Your task to perform on an android device: install app "Yahoo Mail" Image 0: 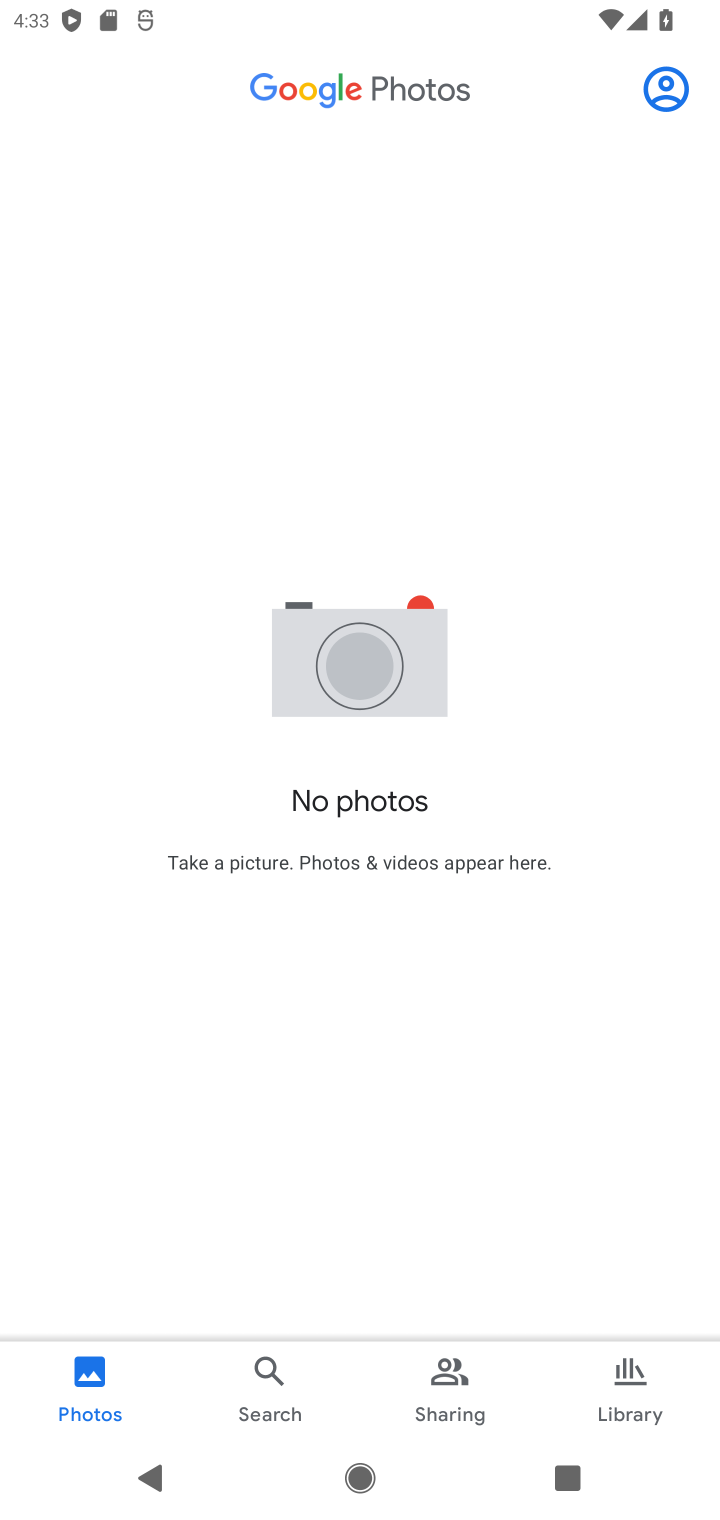
Step 0: press home button
Your task to perform on an android device: install app "Yahoo Mail" Image 1: 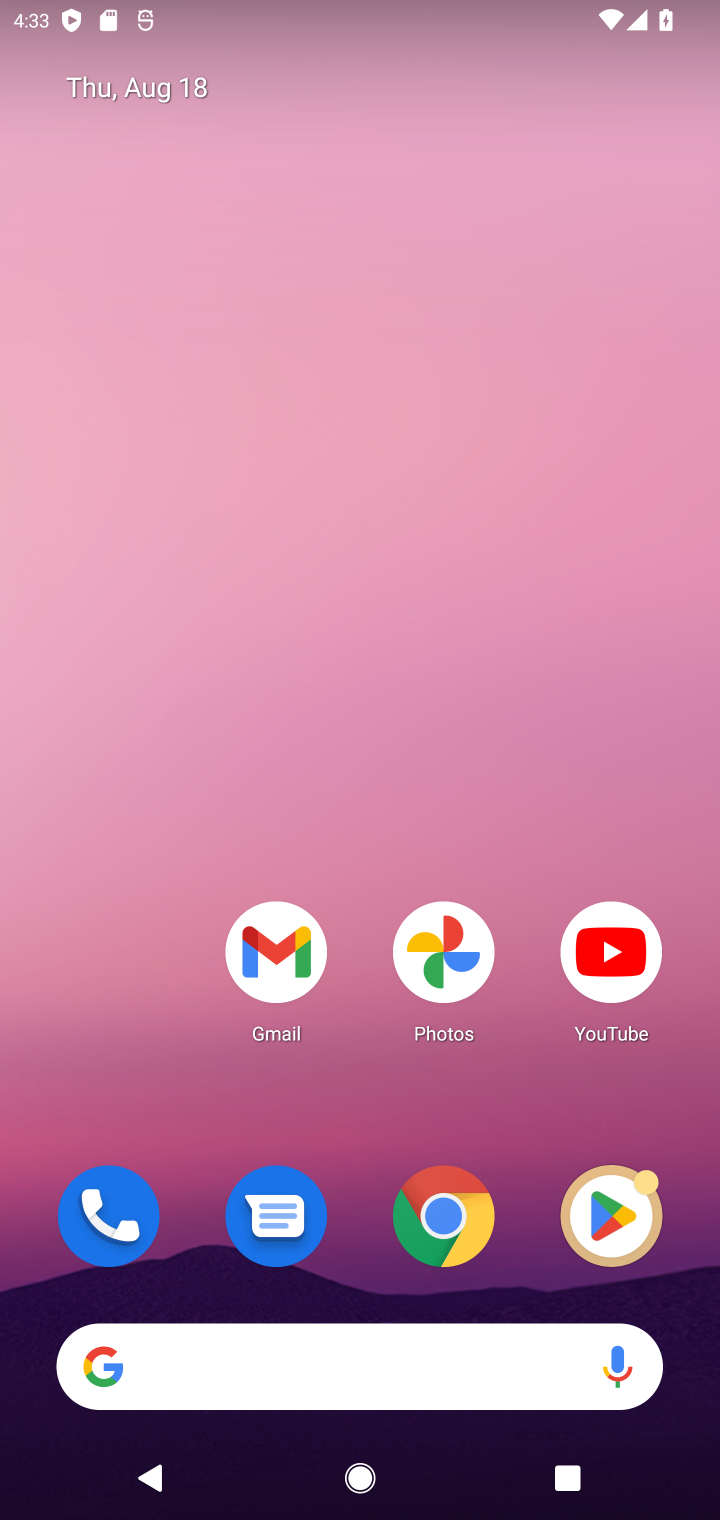
Step 1: click (587, 1209)
Your task to perform on an android device: install app "Yahoo Mail" Image 2: 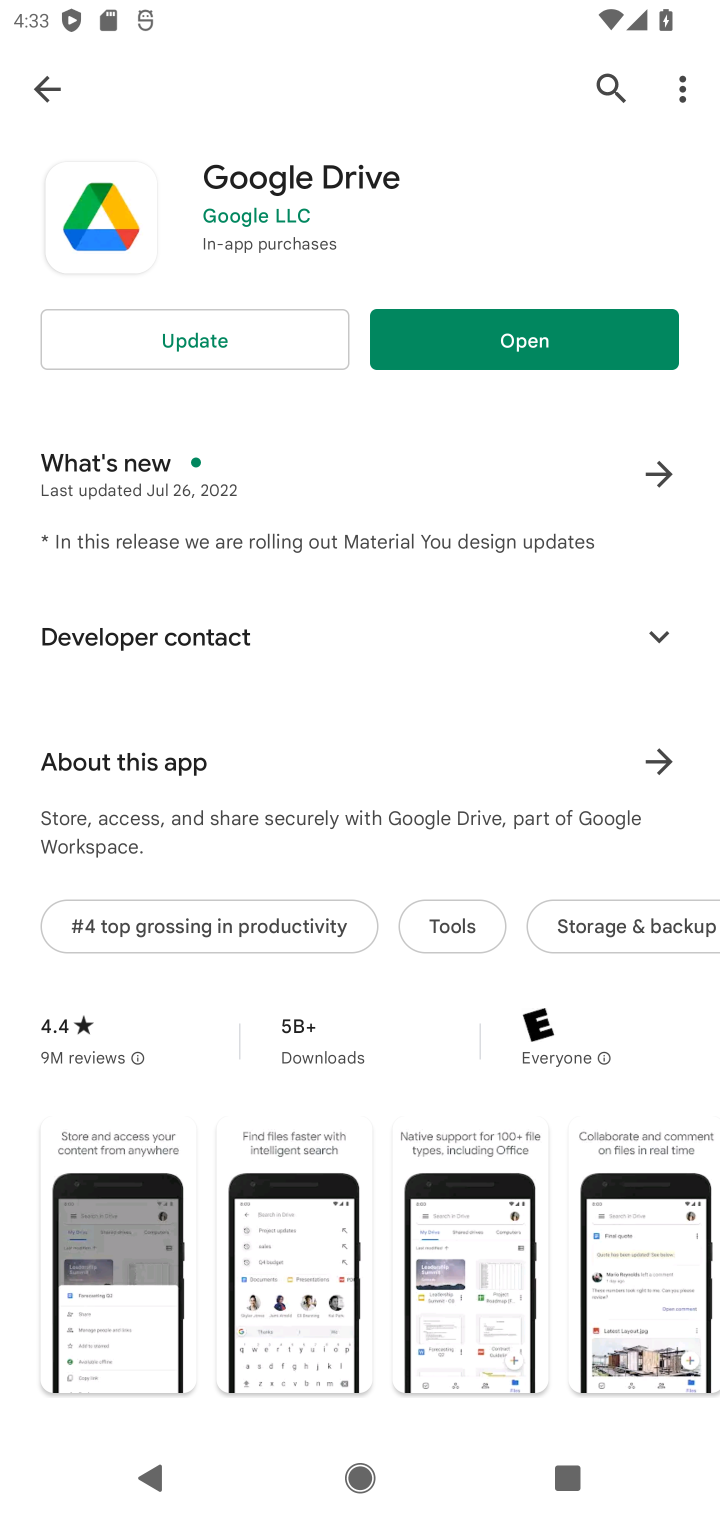
Step 2: click (621, 89)
Your task to perform on an android device: install app "Yahoo Mail" Image 3: 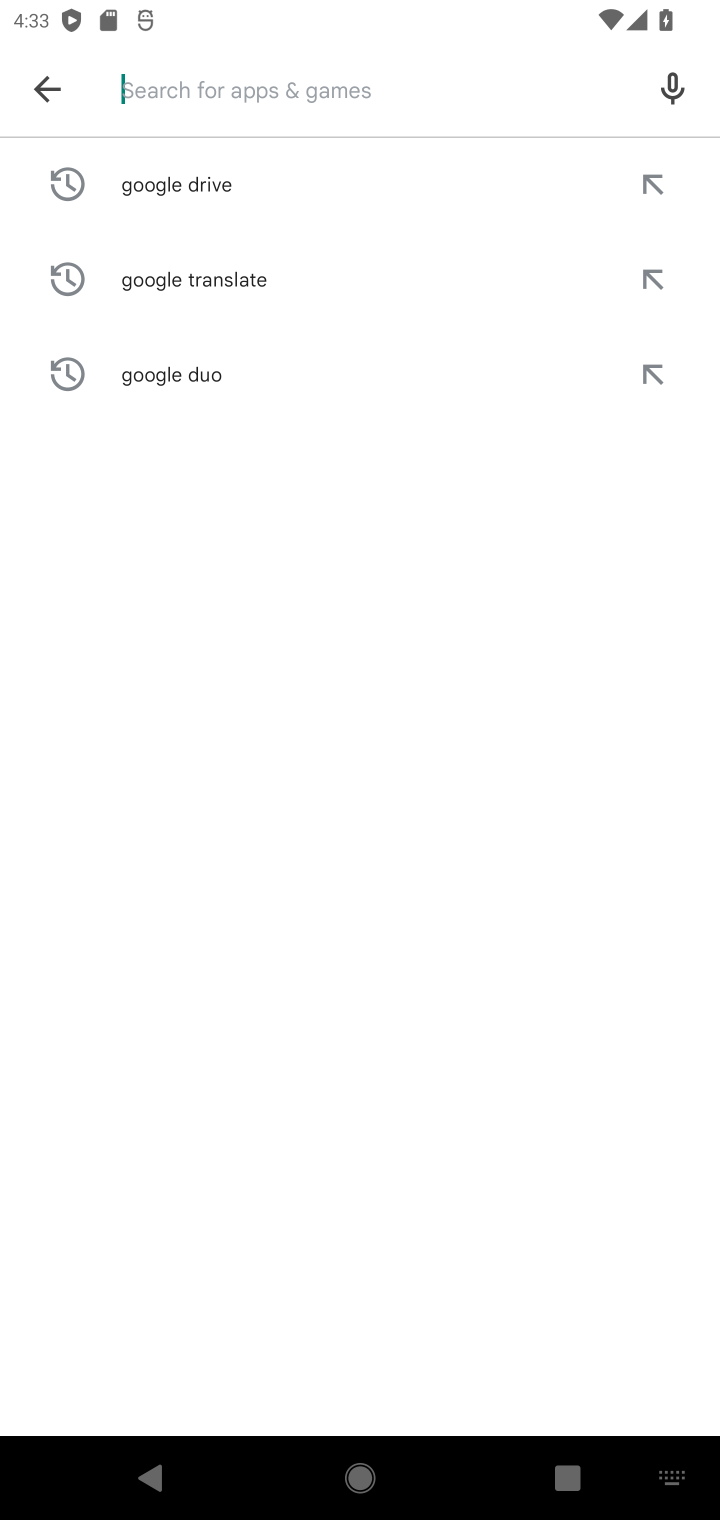
Step 3: type "Yahoo Mail"
Your task to perform on an android device: install app "Yahoo Mail" Image 4: 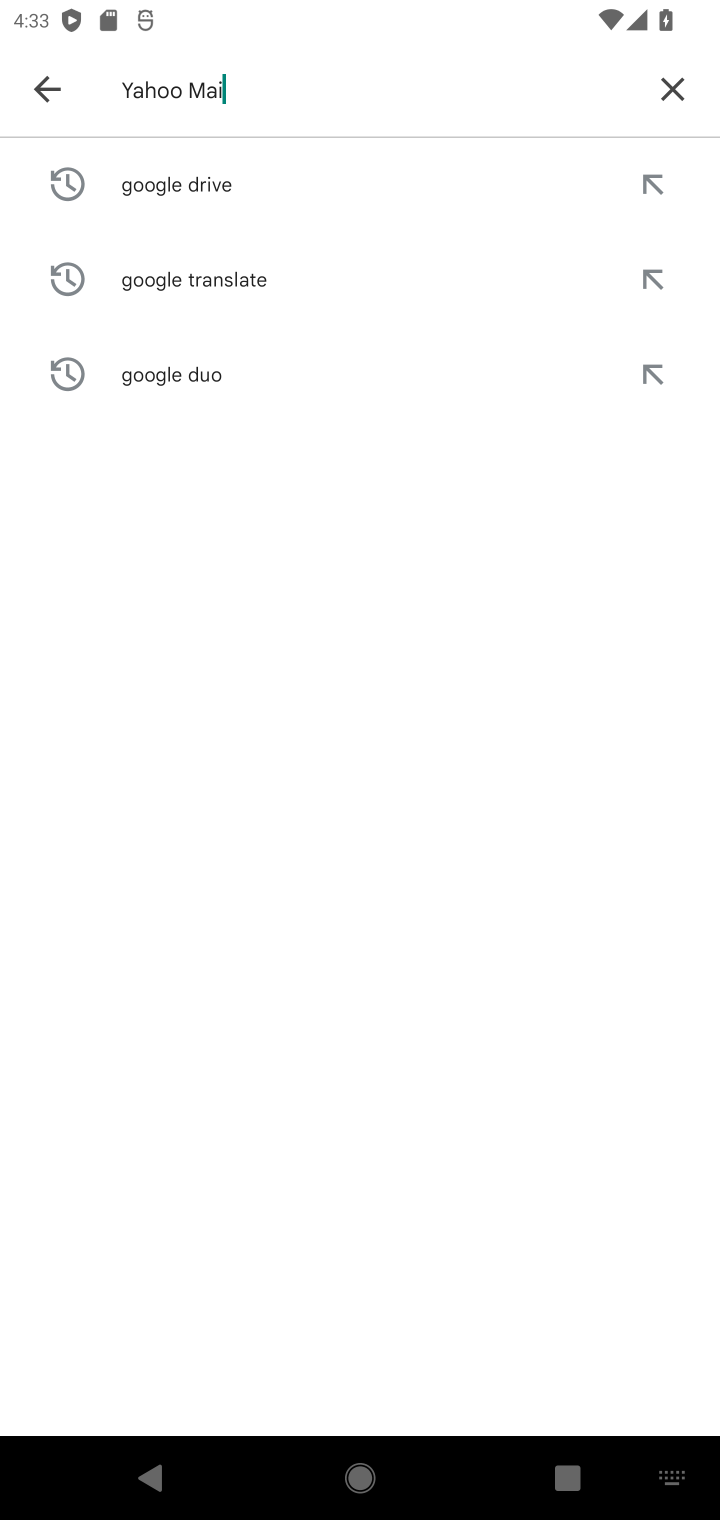
Step 4: type ""
Your task to perform on an android device: install app "Yahoo Mail" Image 5: 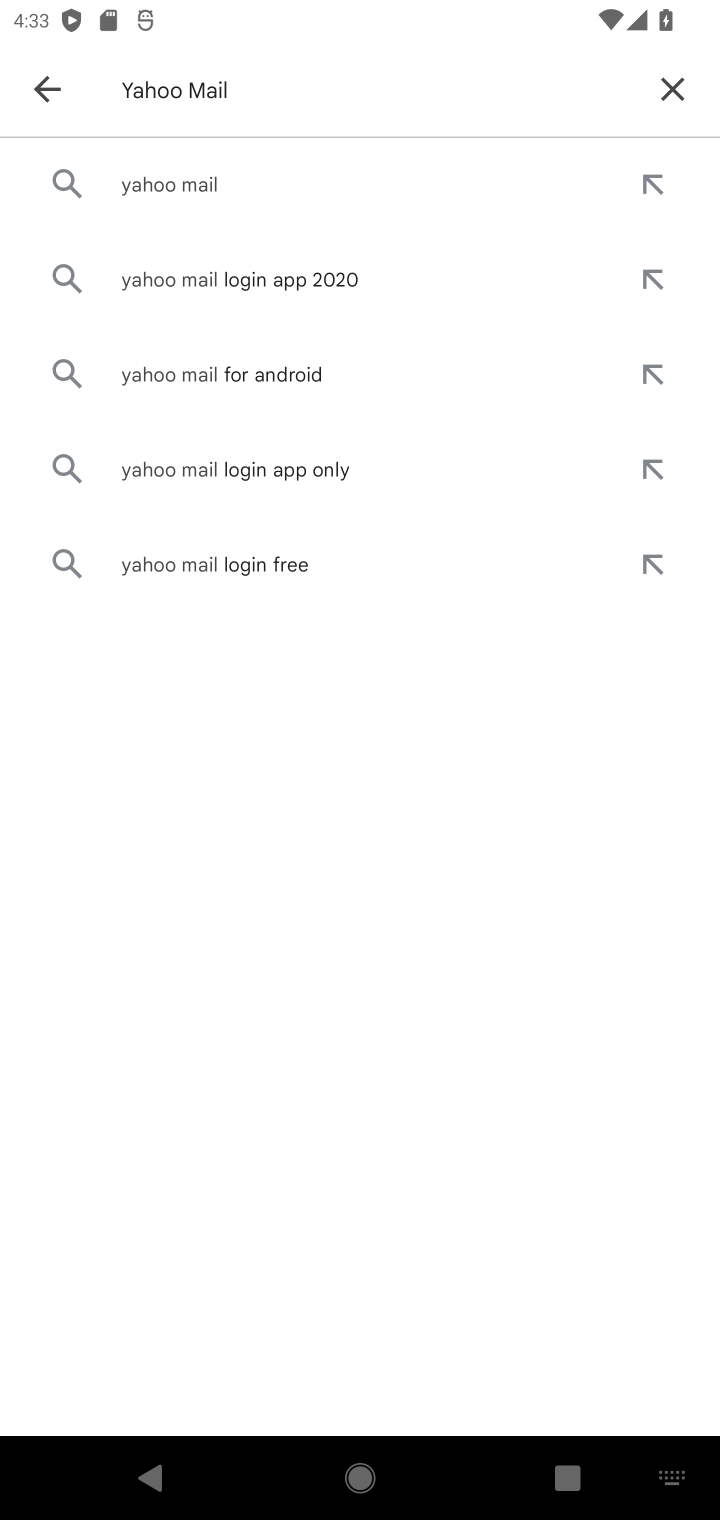
Step 5: click (279, 170)
Your task to perform on an android device: install app "Yahoo Mail" Image 6: 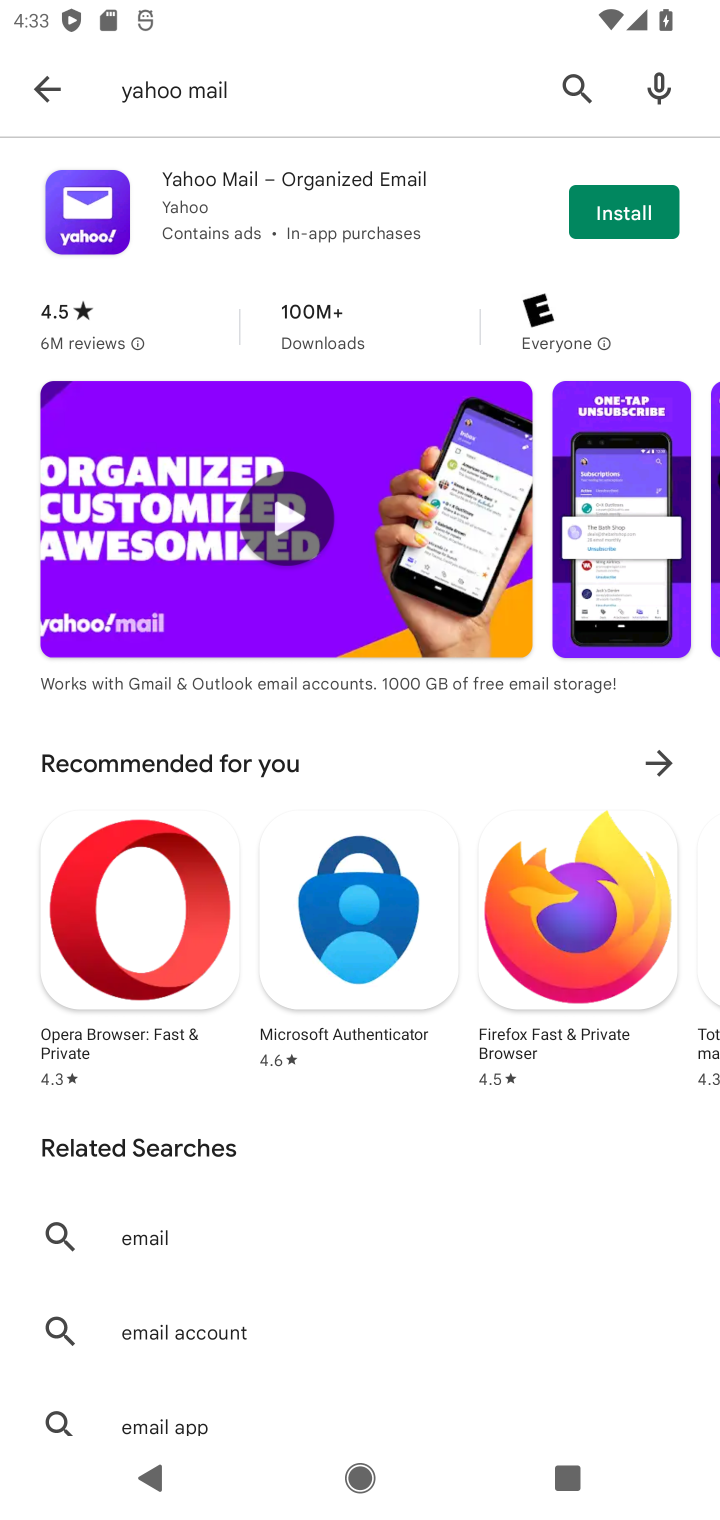
Step 6: click (613, 216)
Your task to perform on an android device: install app "Yahoo Mail" Image 7: 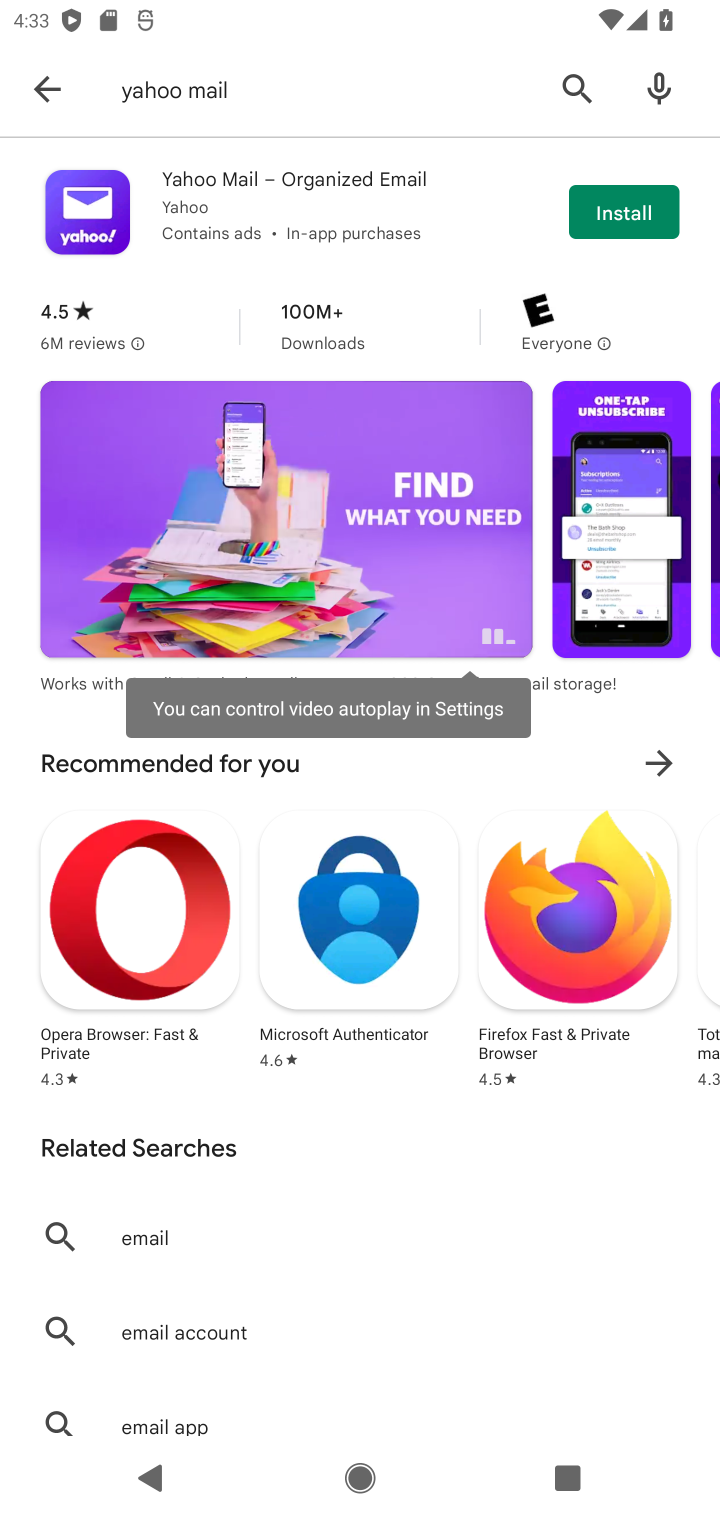
Step 7: click (609, 209)
Your task to perform on an android device: install app "Yahoo Mail" Image 8: 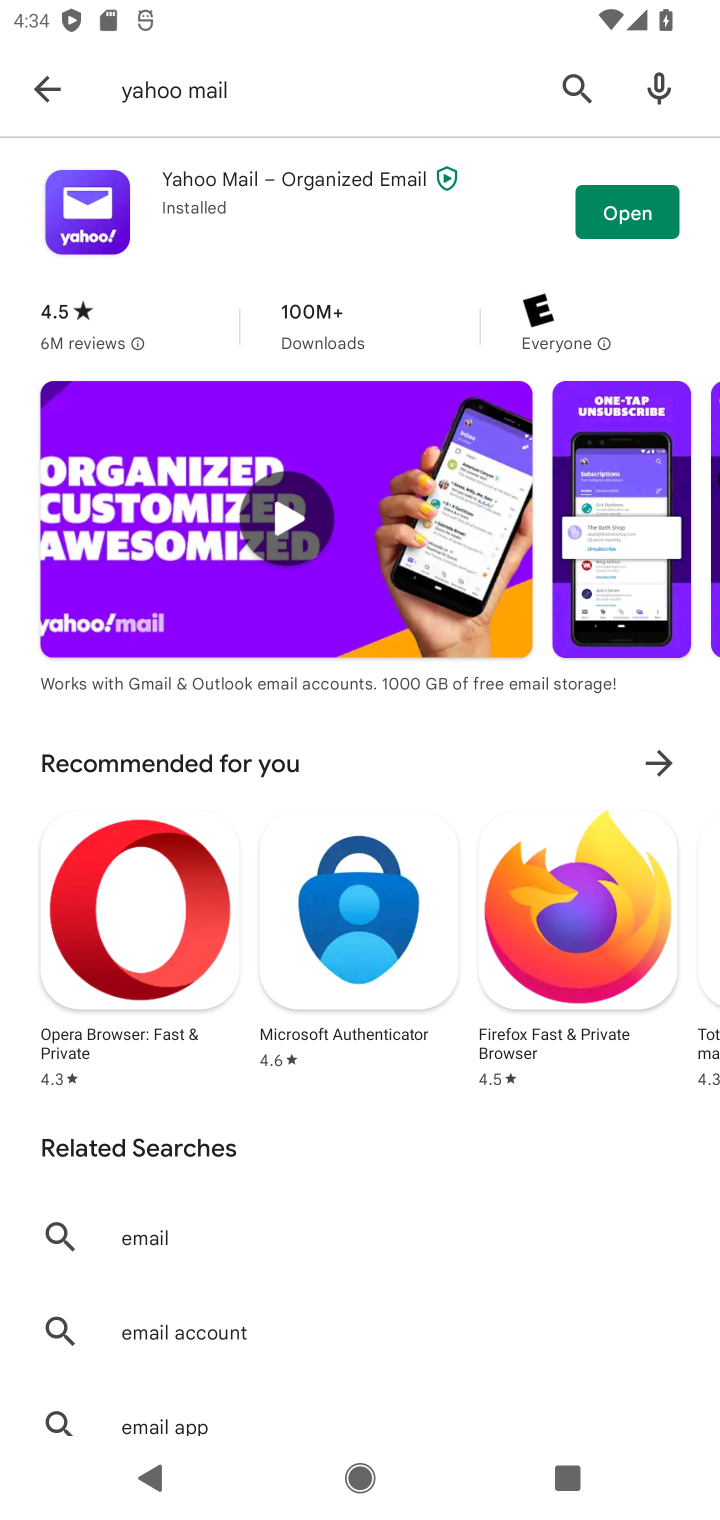
Step 8: task complete